Your task to perform on an android device: turn off wifi Image 0: 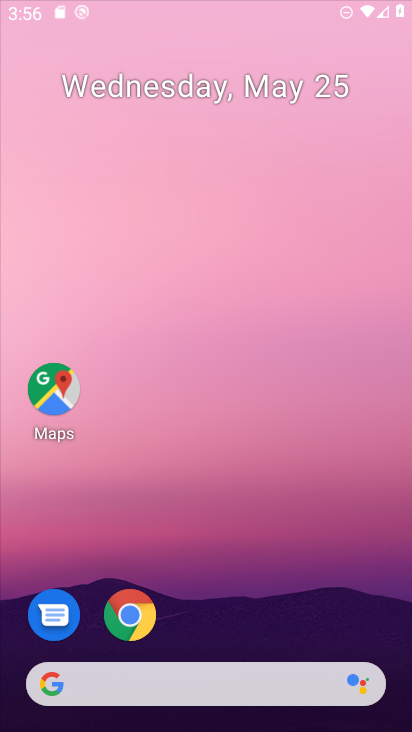
Step 0: click (225, 681)
Your task to perform on an android device: turn off wifi Image 1: 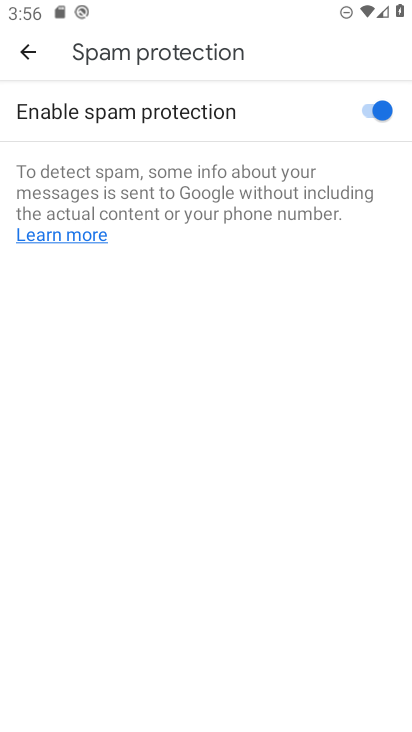
Step 1: click (30, 48)
Your task to perform on an android device: turn off wifi Image 2: 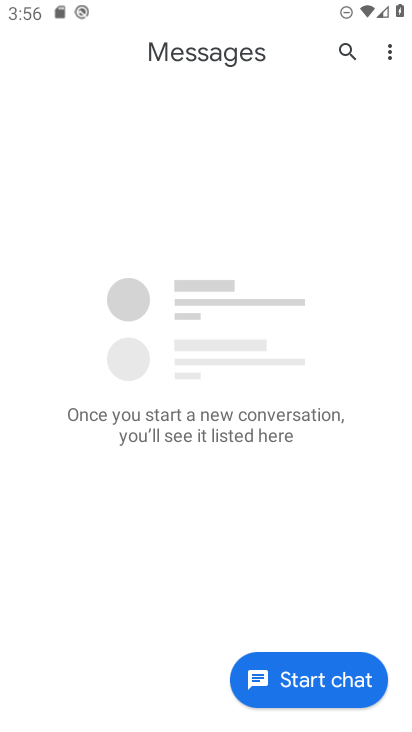
Step 2: press home button
Your task to perform on an android device: turn off wifi Image 3: 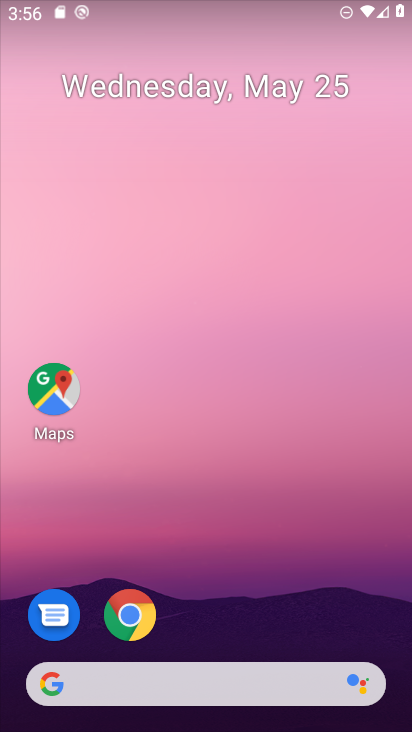
Step 3: drag from (218, 587) to (289, 57)
Your task to perform on an android device: turn off wifi Image 4: 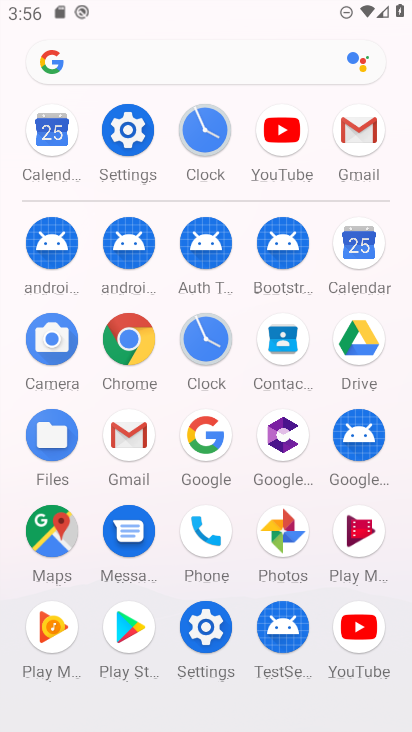
Step 4: click (130, 120)
Your task to perform on an android device: turn off wifi Image 5: 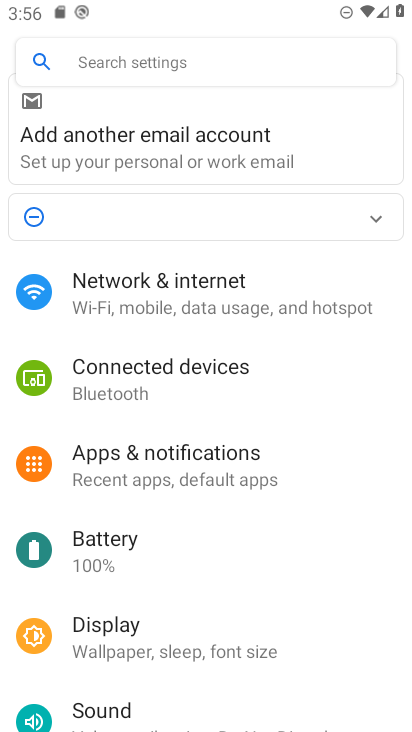
Step 5: click (186, 298)
Your task to perform on an android device: turn off wifi Image 6: 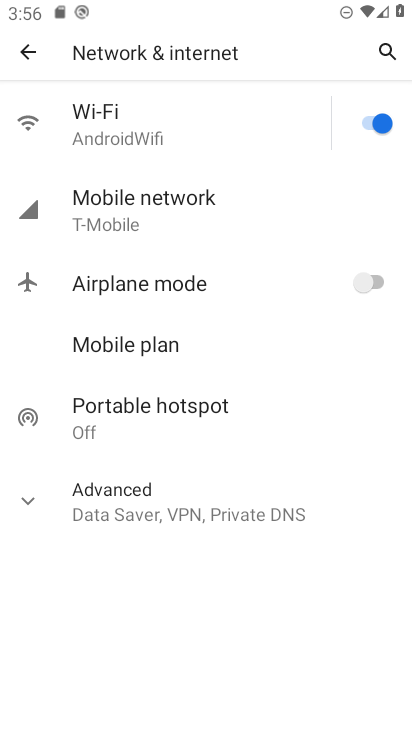
Step 6: click (364, 120)
Your task to perform on an android device: turn off wifi Image 7: 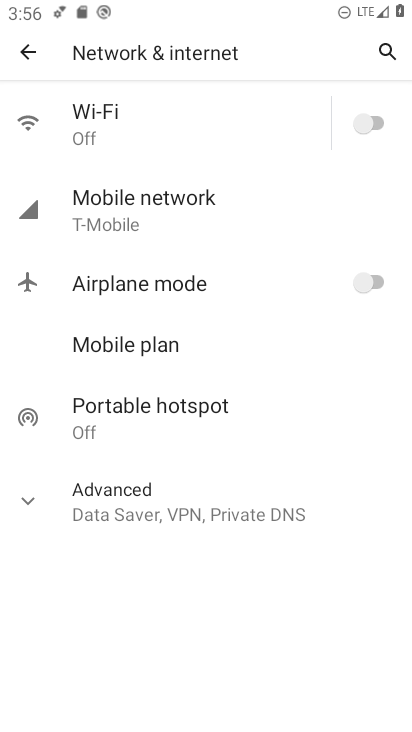
Step 7: task complete